Your task to perform on an android device: Clear the shopping cart on amazon.com. Image 0: 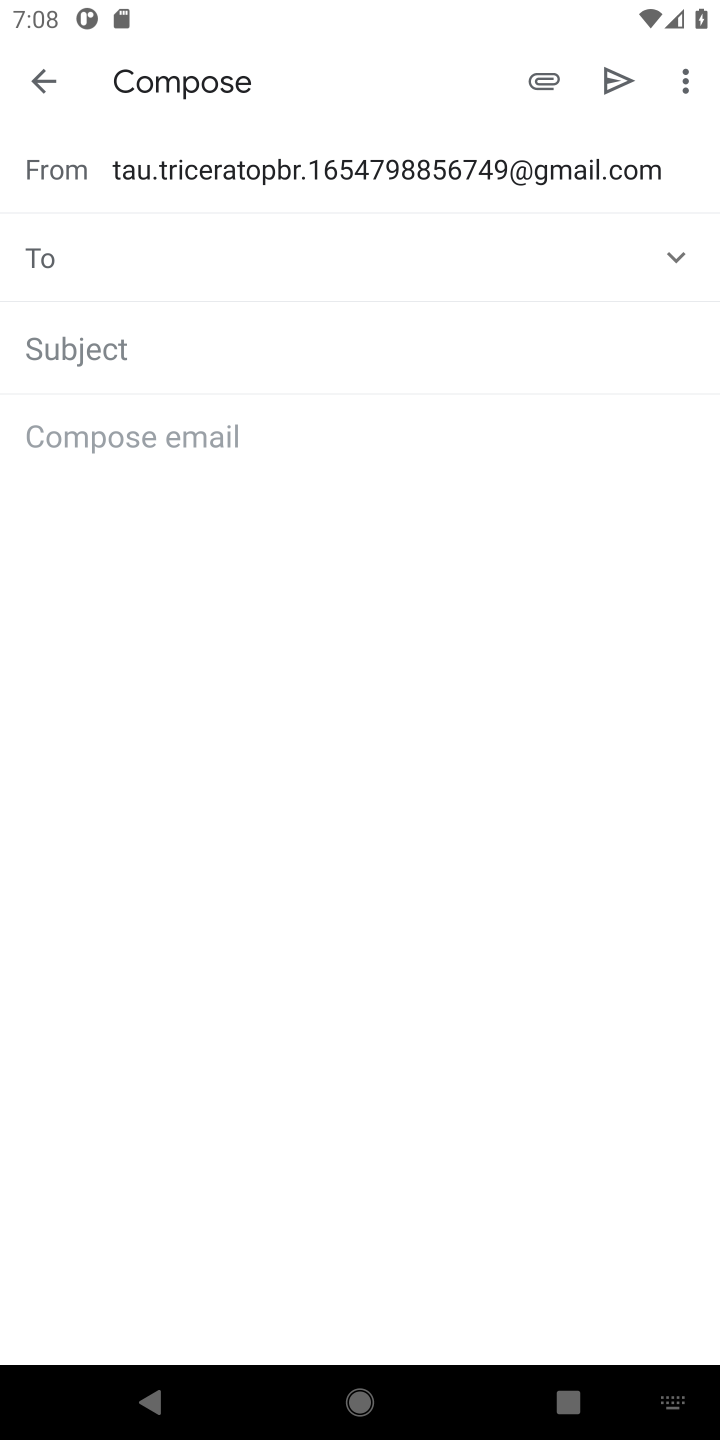
Step 0: press home button
Your task to perform on an android device: Clear the shopping cart on amazon.com. Image 1: 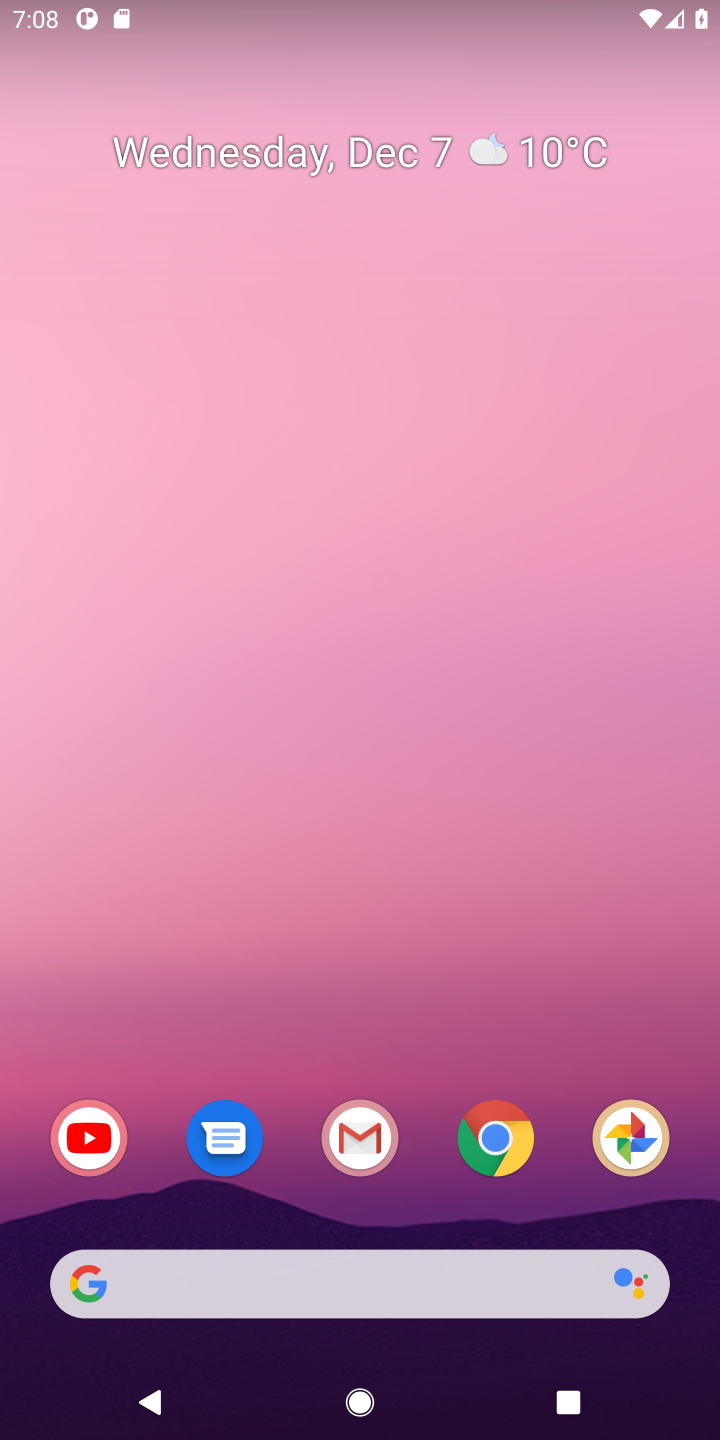
Step 1: click (135, 1282)
Your task to perform on an android device: Clear the shopping cart on amazon.com. Image 2: 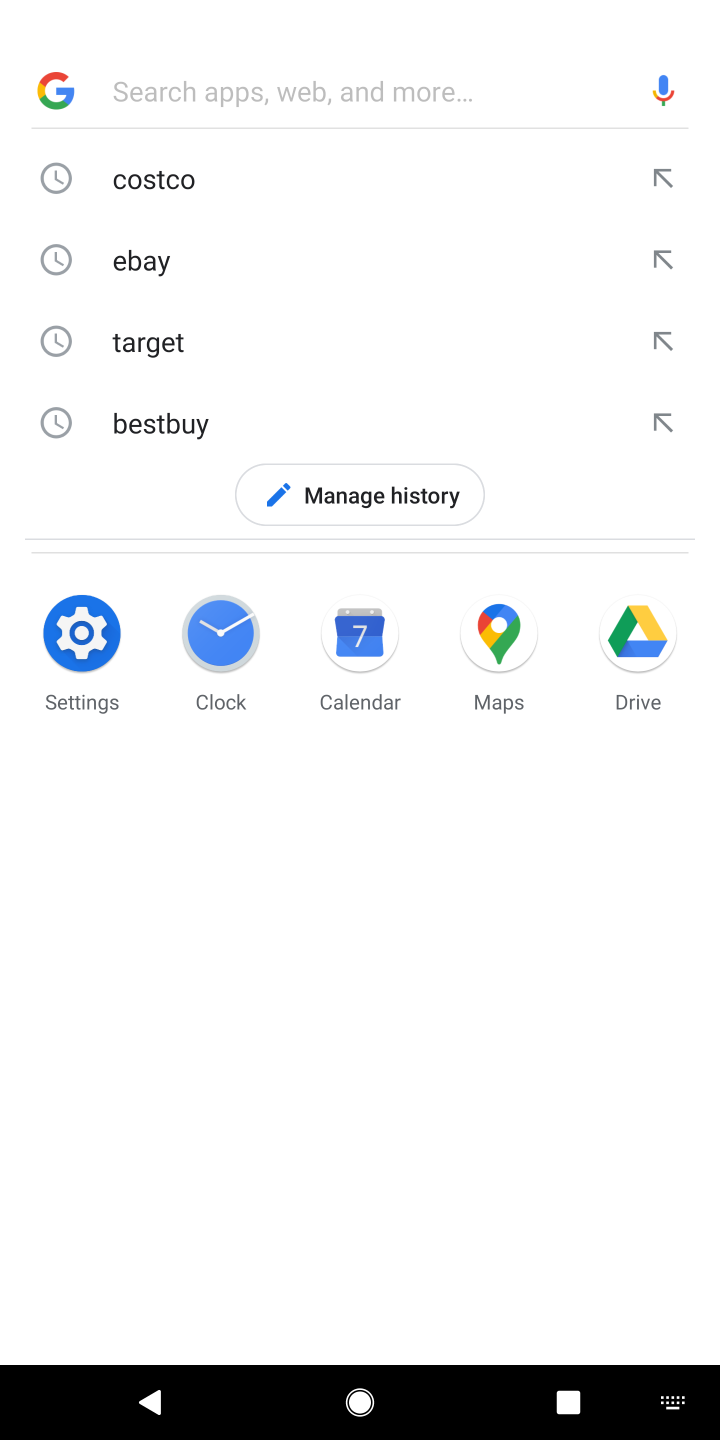
Step 2: type "amazon.com"
Your task to perform on an android device: Clear the shopping cart on amazon.com. Image 3: 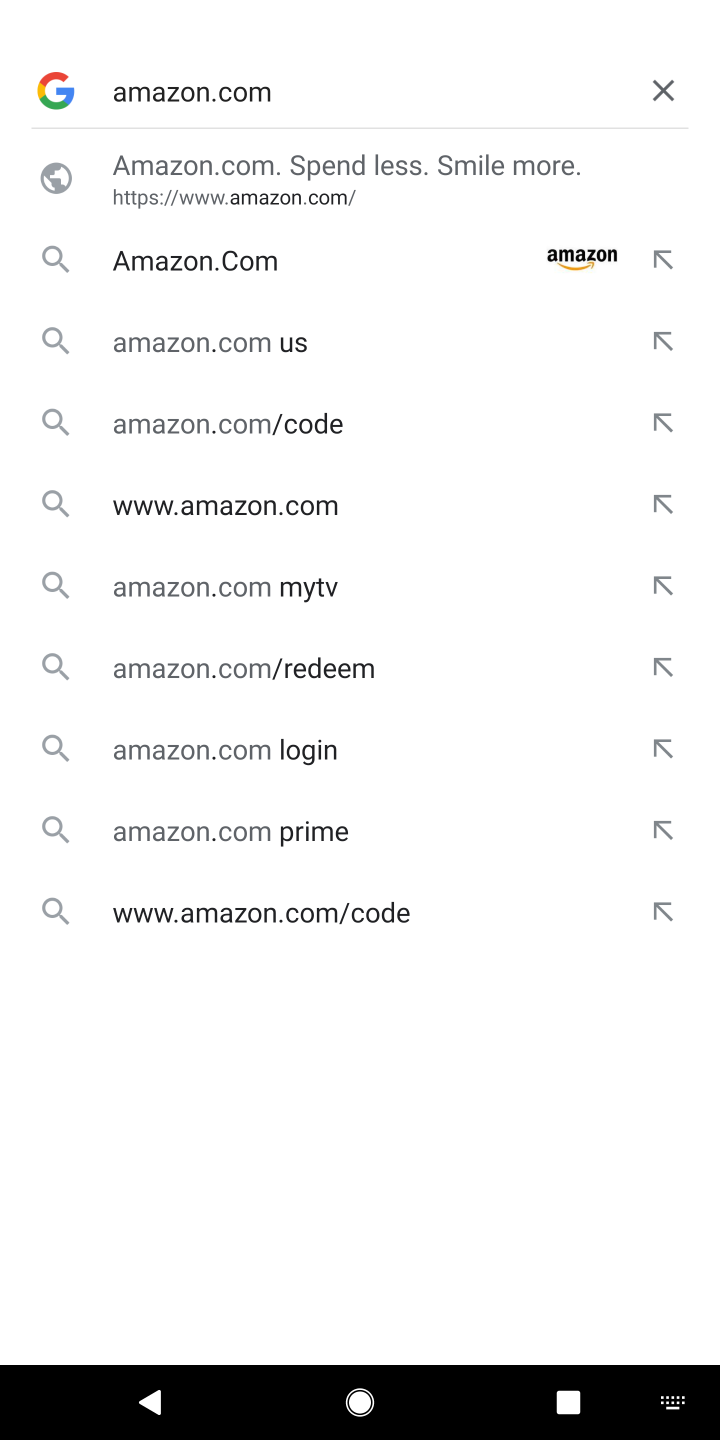
Step 3: press enter
Your task to perform on an android device: Clear the shopping cart on amazon.com. Image 4: 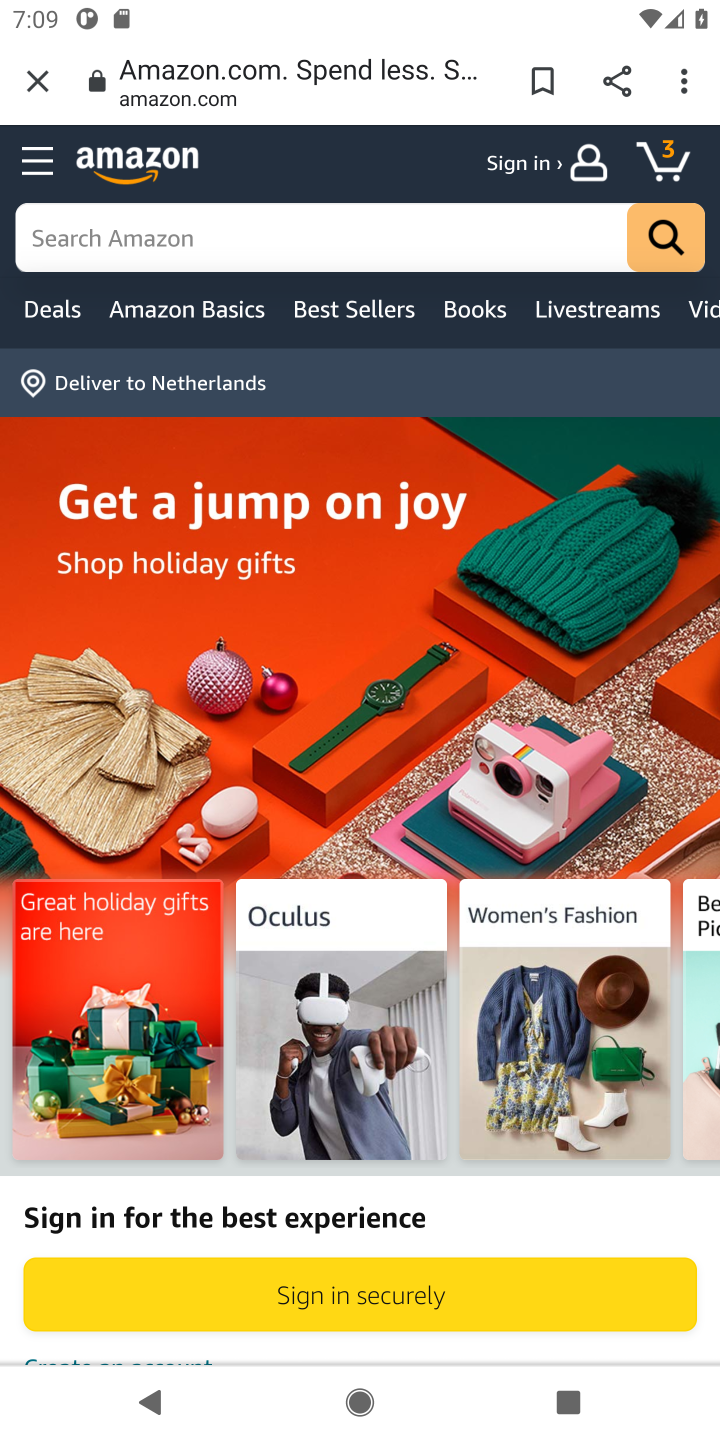
Step 4: click (664, 160)
Your task to perform on an android device: Clear the shopping cart on amazon.com. Image 5: 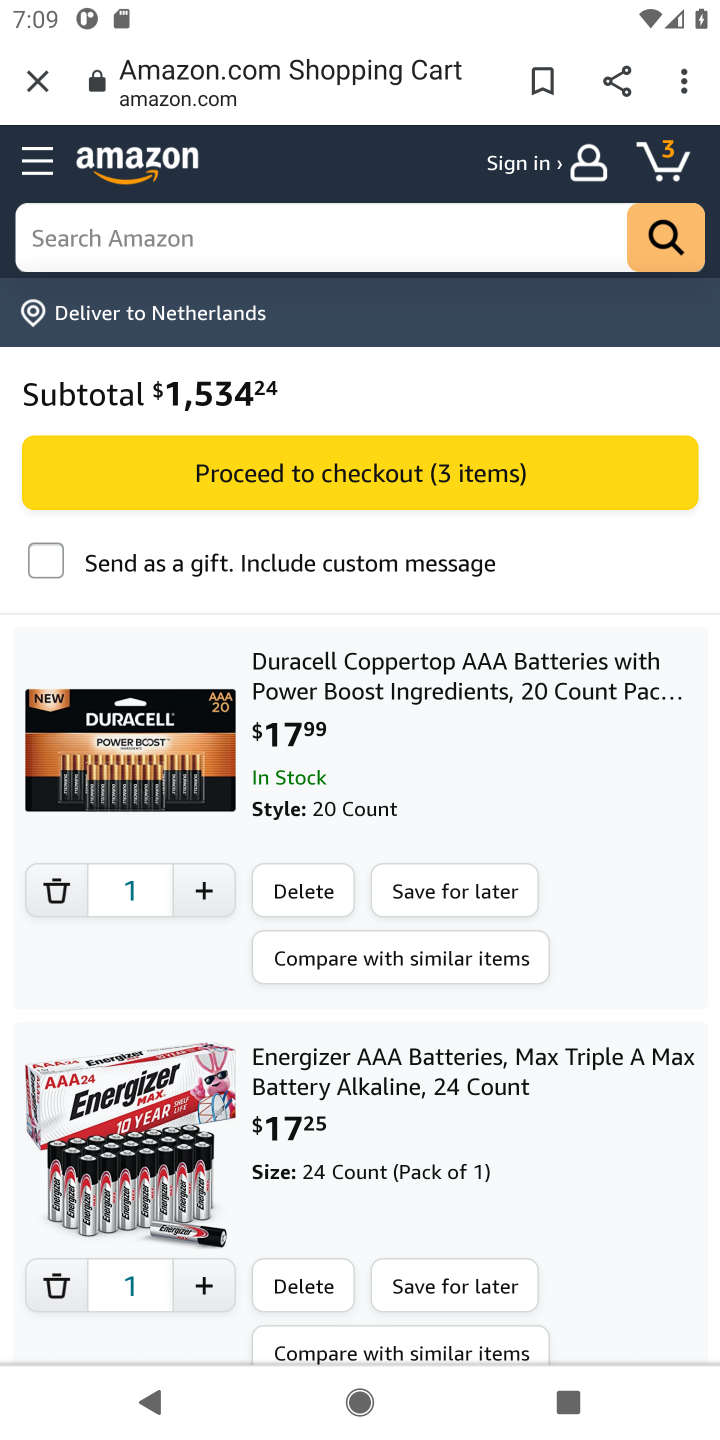
Step 5: click (51, 900)
Your task to perform on an android device: Clear the shopping cart on amazon.com. Image 6: 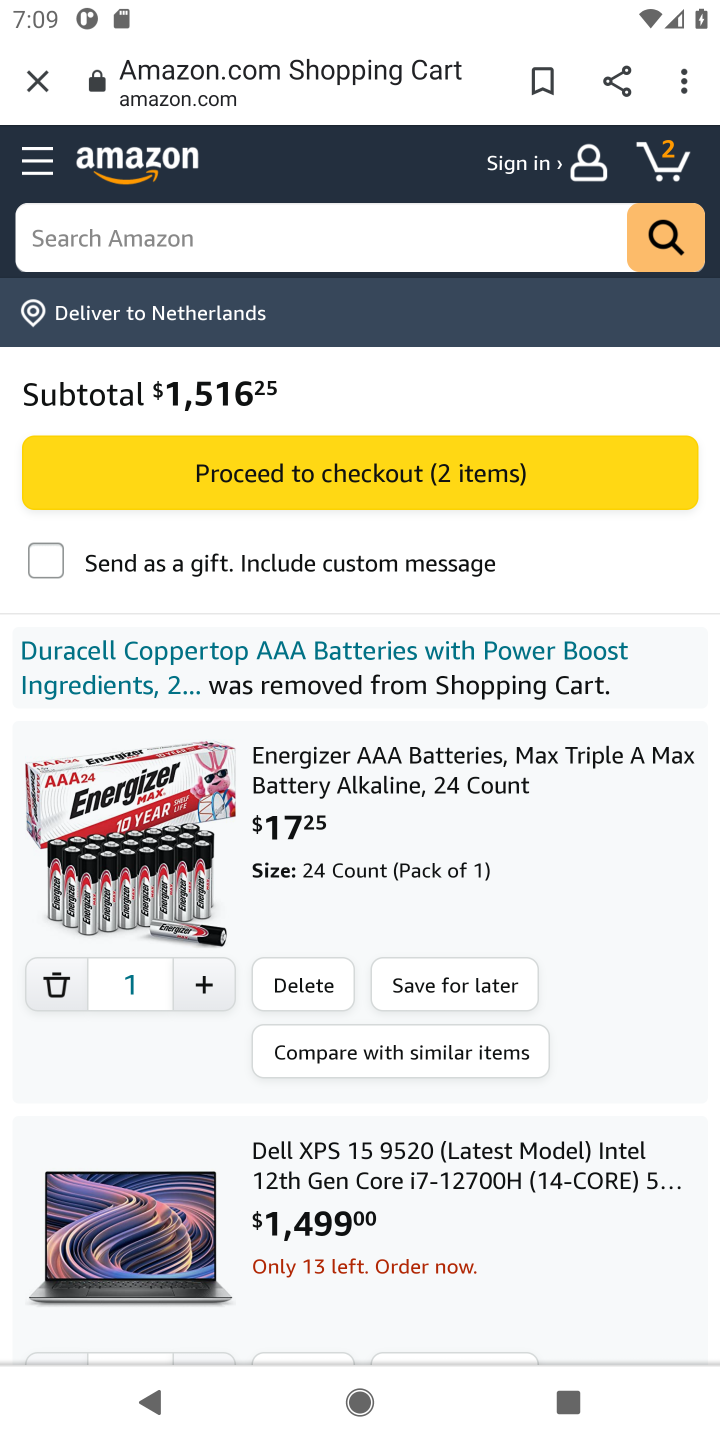
Step 6: click (45, 985)
Your task to perform on an android device: Clear the shopping cart on amazon.com. Image 7: 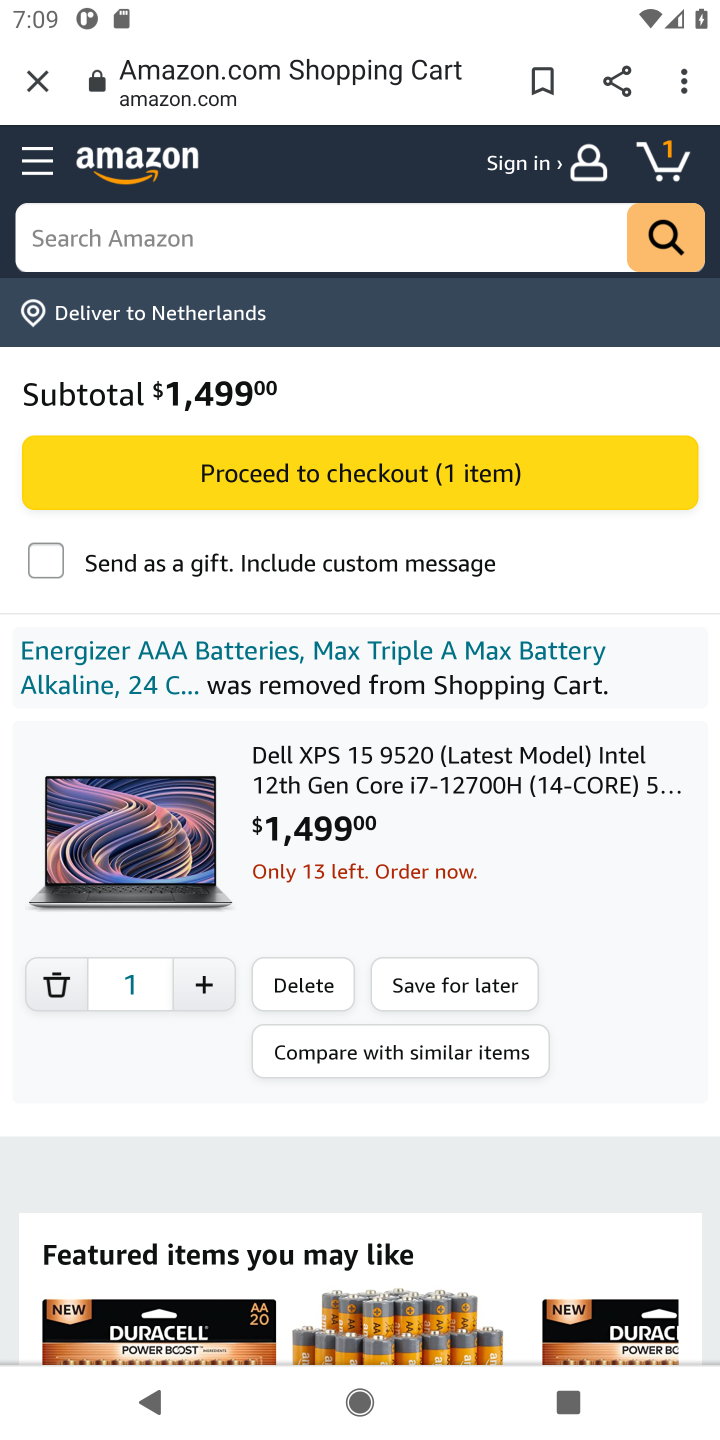
Step 7: click (65, 979)
Your task to perform on an android device: Clear the shopping cart on amazon.com. Image 8: 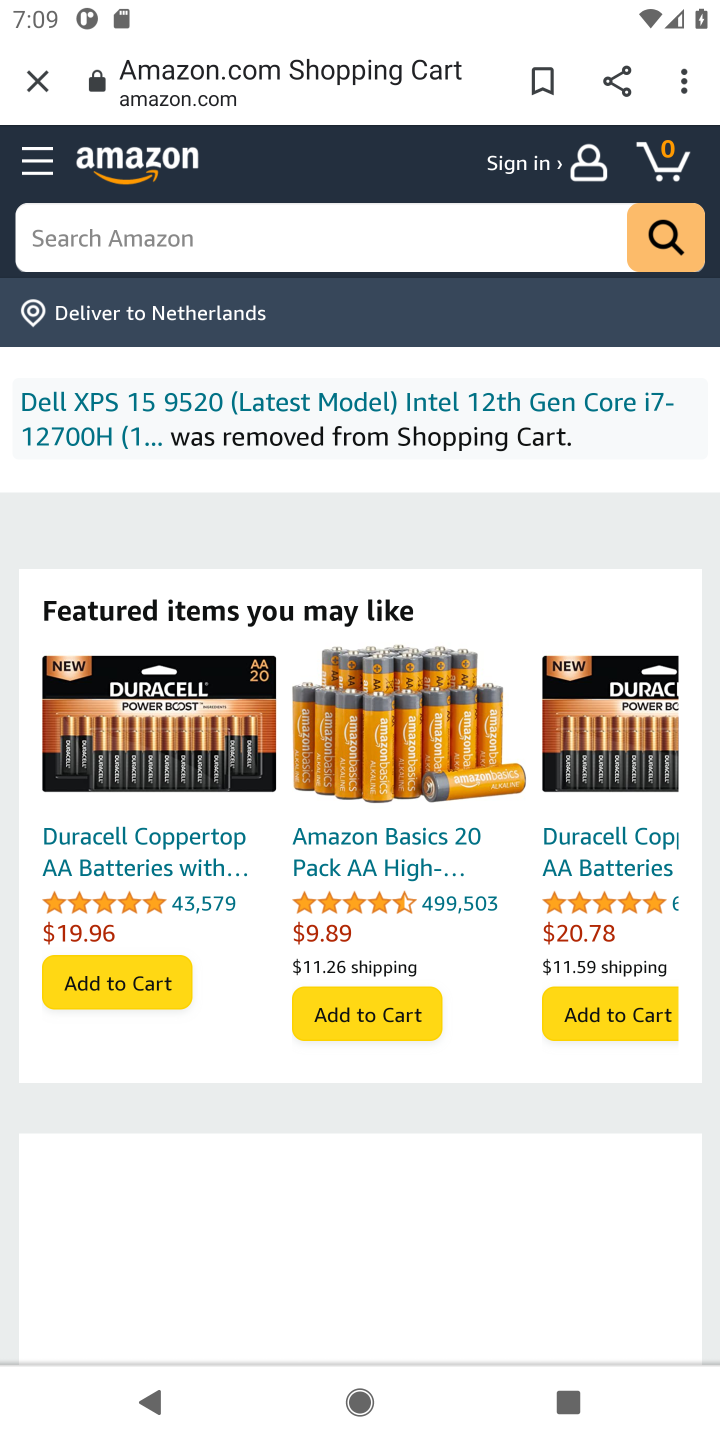
Step 8: task complete